Your task to perform on an android device: Open Google Maps Image 0: 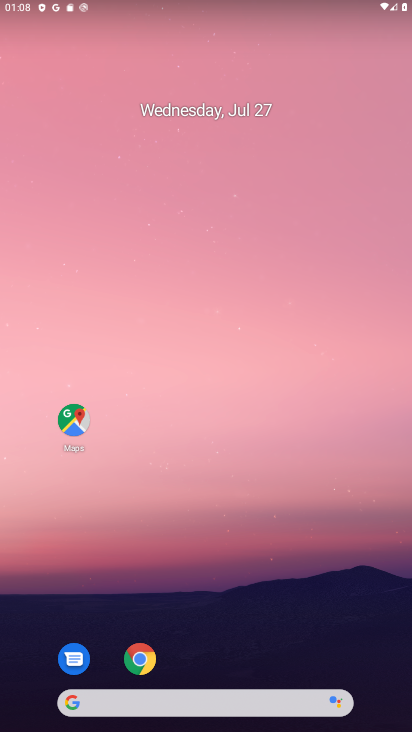
Step 0: click (74, 432)
Your task to perform on an android device: Open Google Maps Image 1: 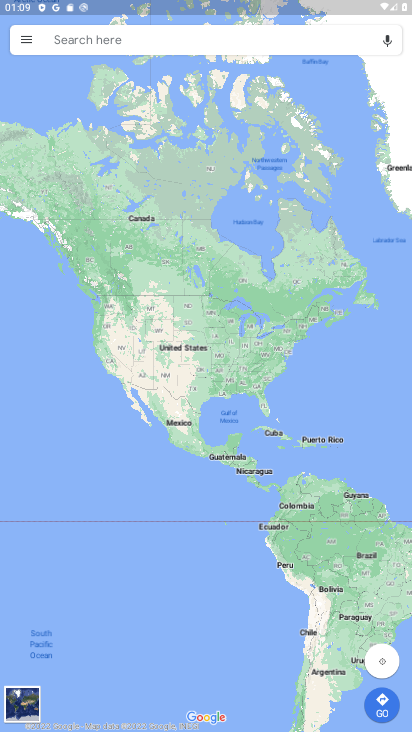
Step 1: task complete